Your task to perform on an android device: Check the news Image 0: 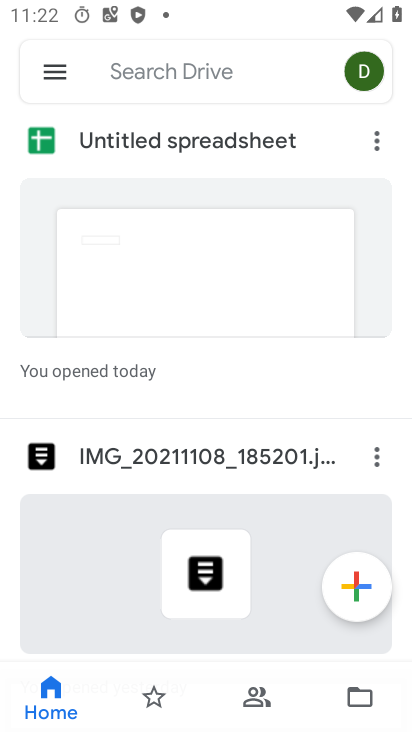
Step 0: press home button
Your task to perform on an android device: Check the news Image 1: 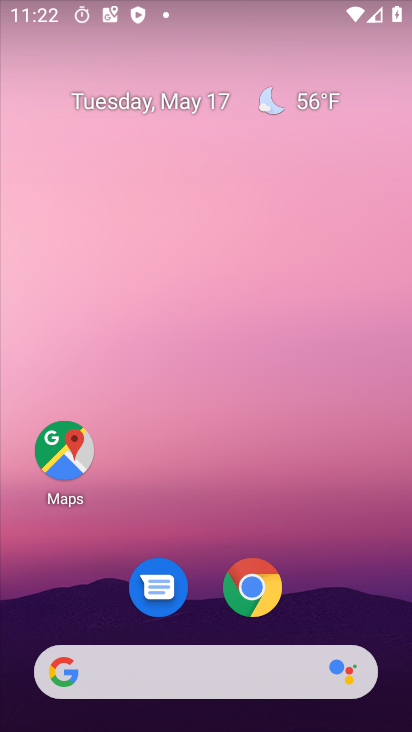
Step 1: drag from (314, 605) to (242, 152)
Your task to perform on an android device: Check the news Image 2: 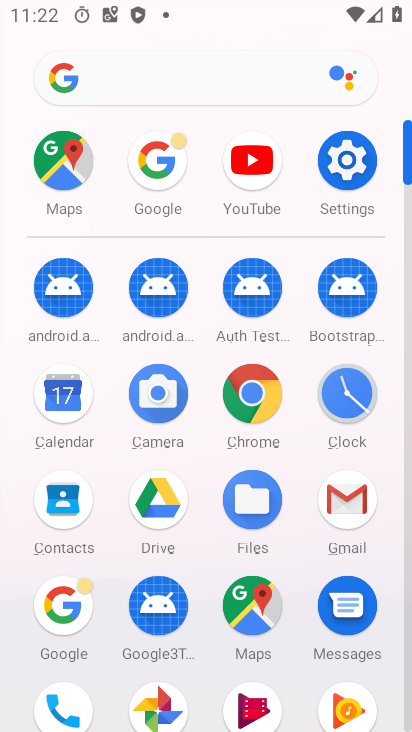
Step 2: click (151, 162)
Your task to perform on an android device: Check the news Image 3: 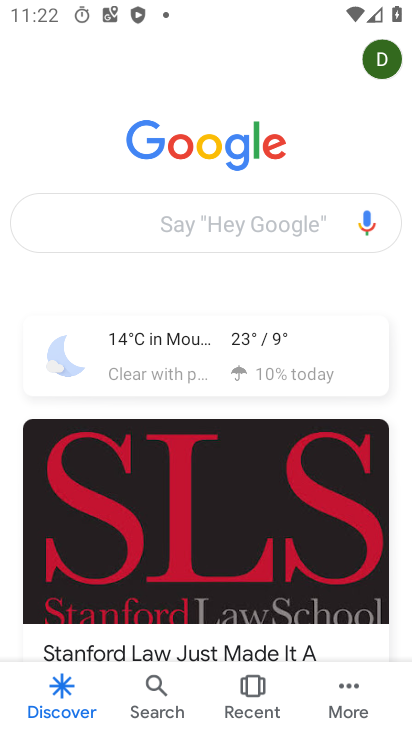
Step 3: click (168, 223)
Your task to perform on an android device: Check the news Image 4: 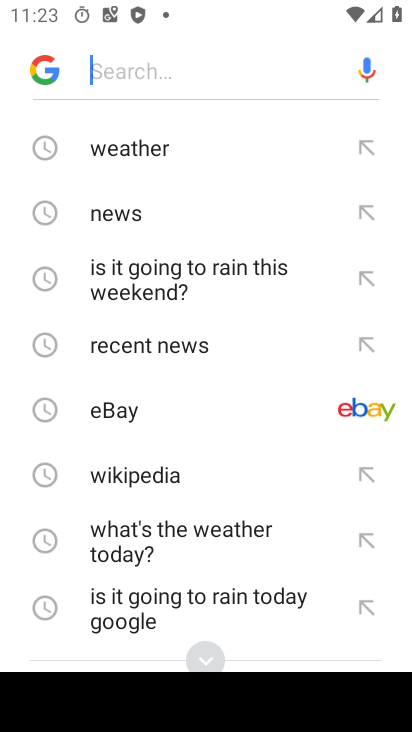
Step 4: type "news"
Your task to perform on an android device: Check the news Image 5: 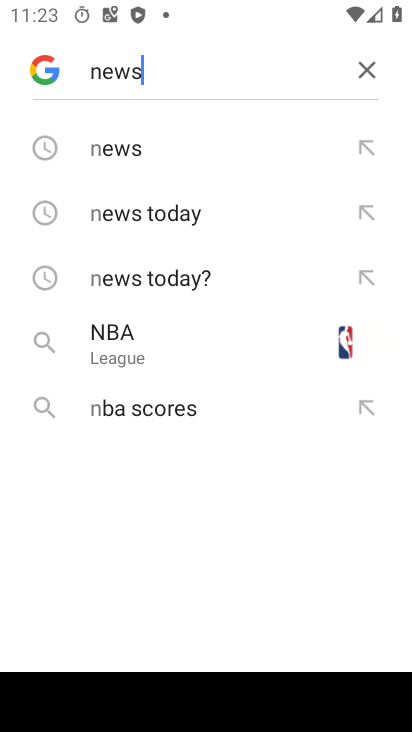
Step 5: type ""
Your task to perform on an android device: Check the news Image 6: 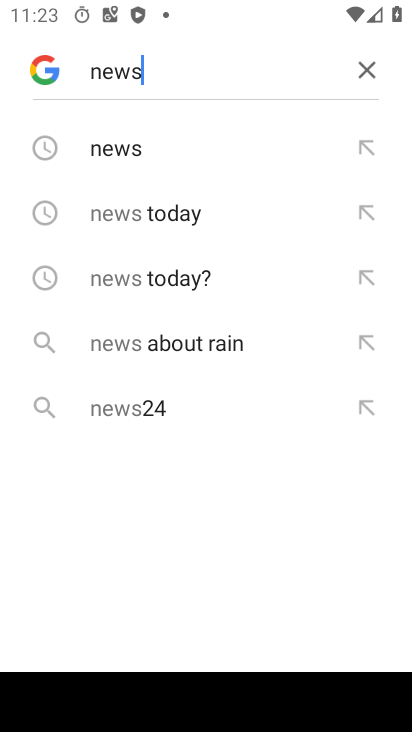
Step 6: click (112, 157)
Your task to perform on an android device: Check the news Image 7: 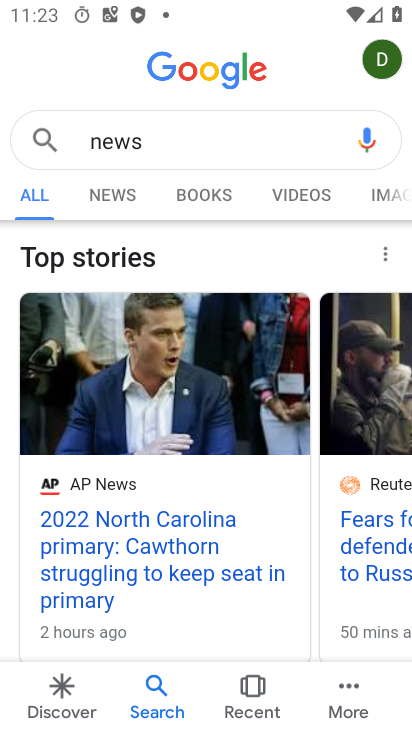
Step 7: task complete